Your task to perform on an android device: check google app version Image 0: 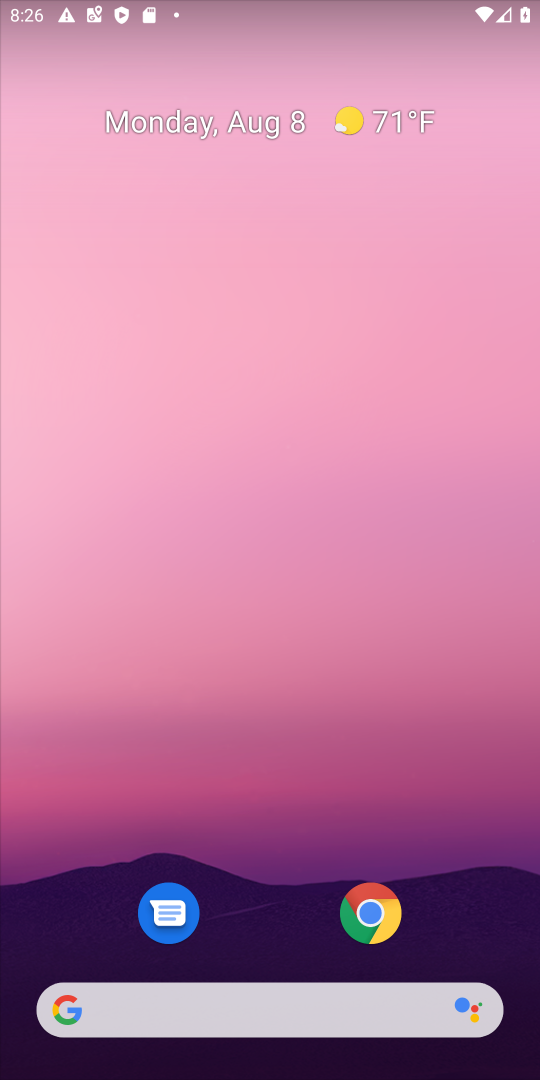
Step 0: drag from (241, 989) to (368, 197)
Your task to perform on an android device: check google app version Image 1: 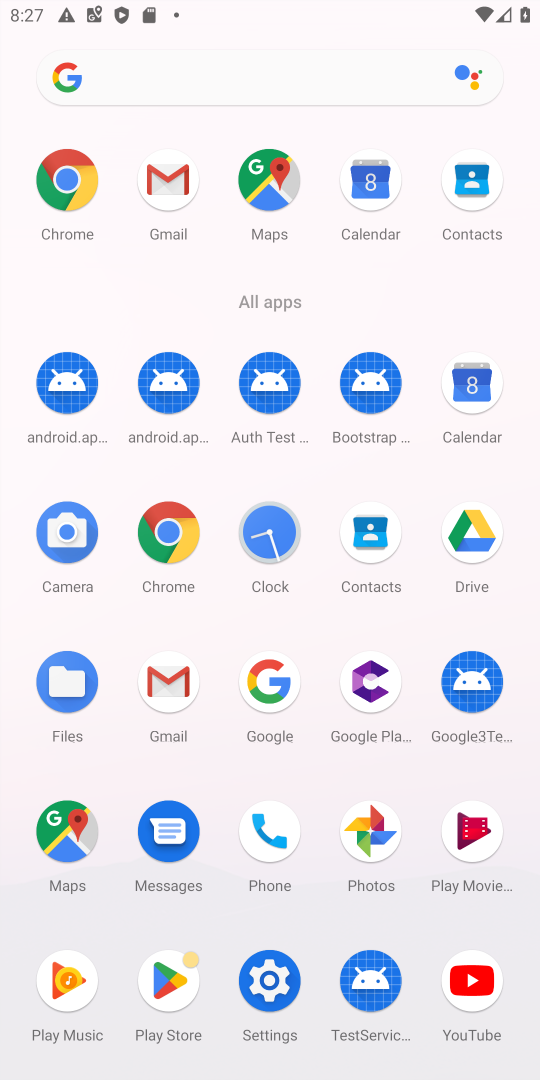
Step 1: click (271, 673)
Your task to perform on an android device: check google app version Image 2: 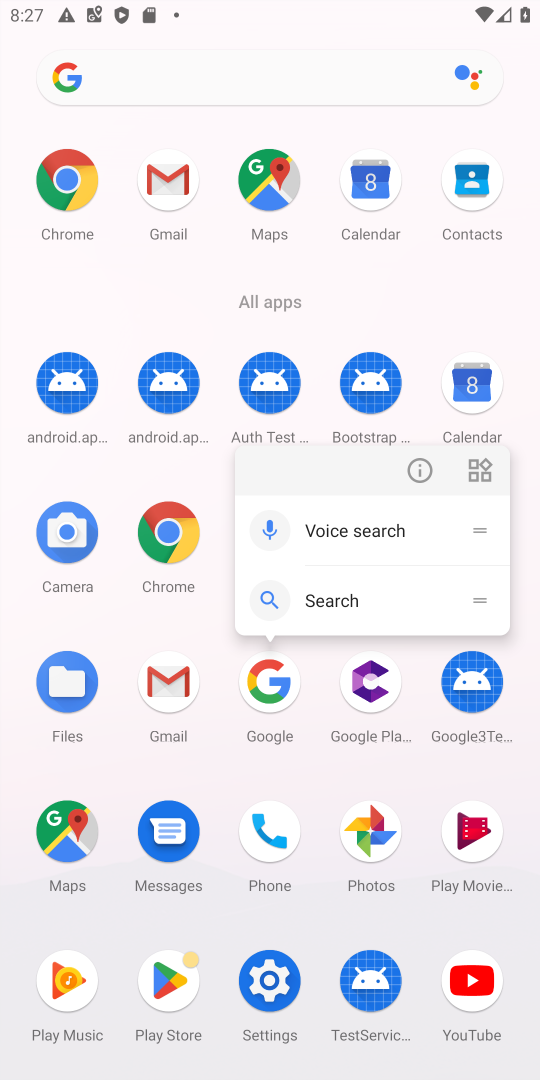
Step 2: click (429, 468)
Your task to perform on an android device: check google app version Image 3: 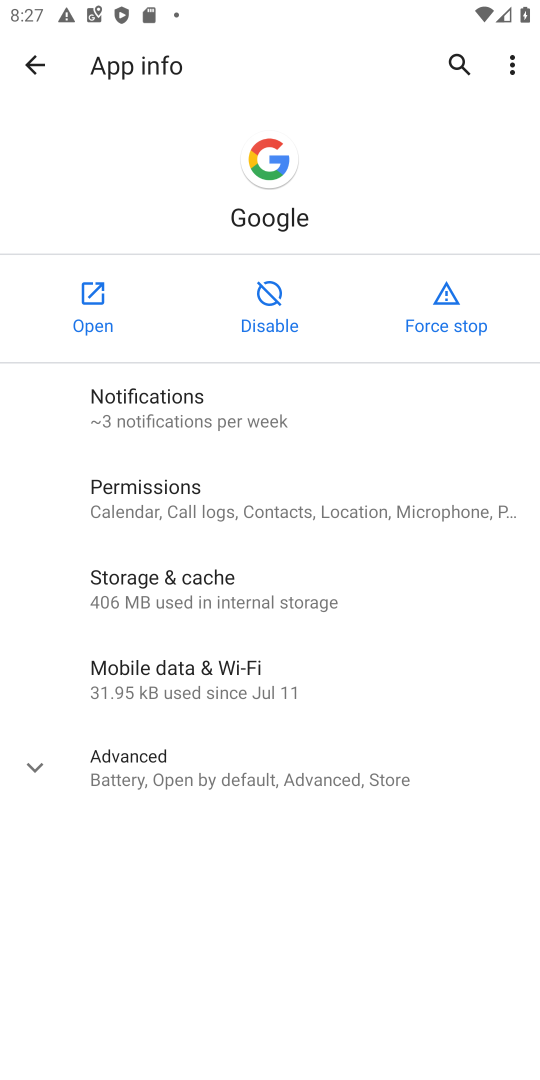
Step 3: click (232, 769)
Your task to perform on an android device: check google app version Image 4: 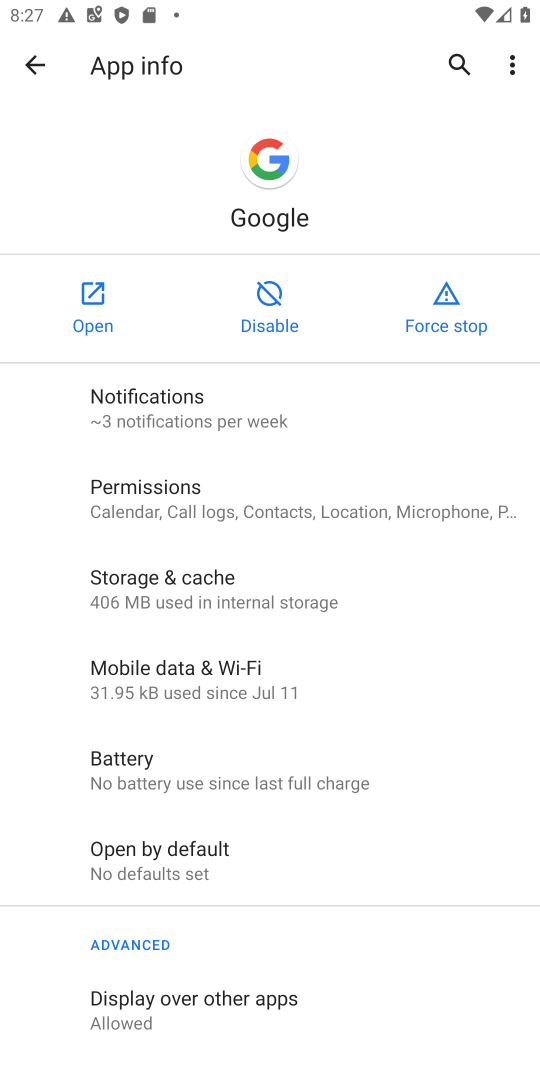
Step 4: task complete